Your task to perform on an android device: Go to Amazon Image 0: 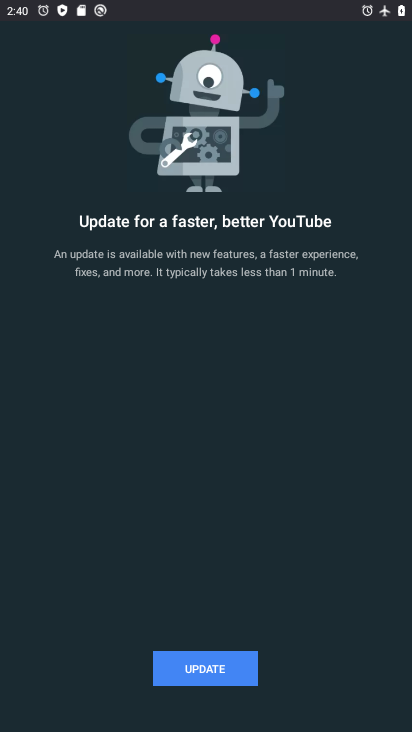
Step 0: press home button
Your task to perform on an android device: Go to Amazon Image 1: 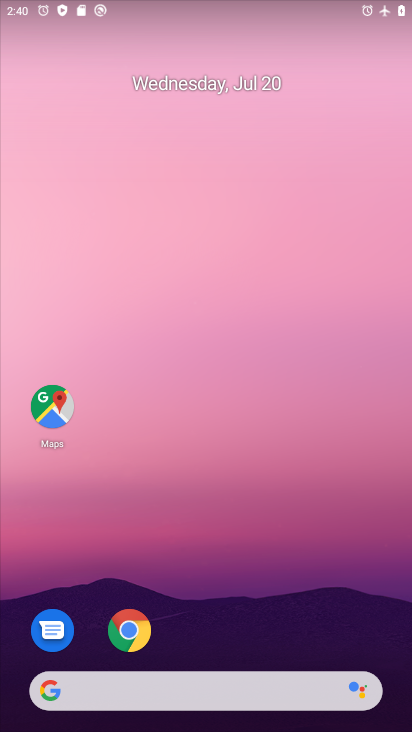
Step 1: click (134, 638)
Your task to perform on an android device: Go to Amazon Image 2: 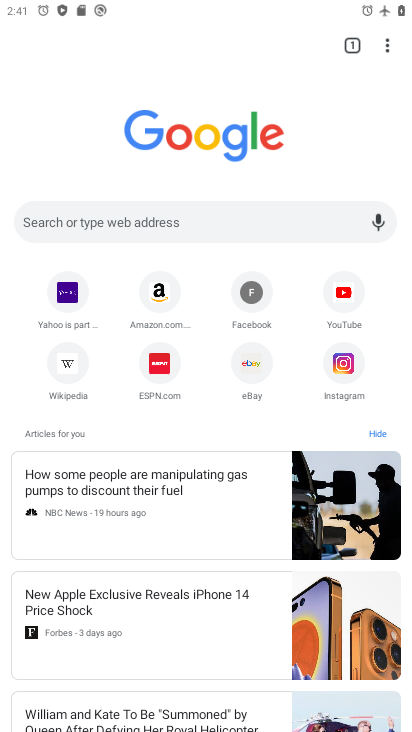
Step 2: click (175, 303)
Your task to perform on an android device: Go to Amazon Image 3: 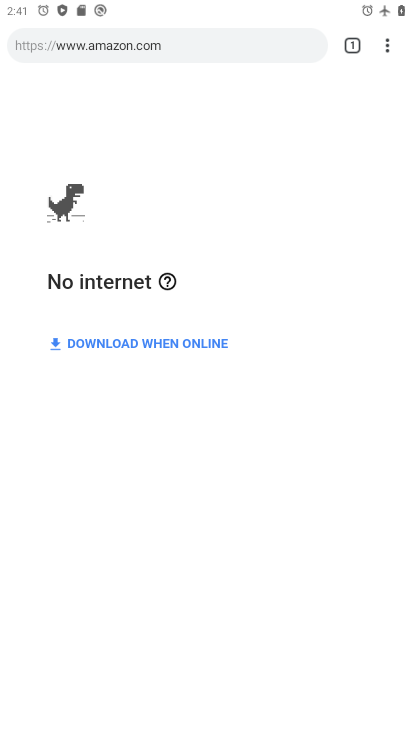
Step 3: drag from (370, 7) to (325, 257)
Your task to perform on an android device: Go to Amazon Image 4: 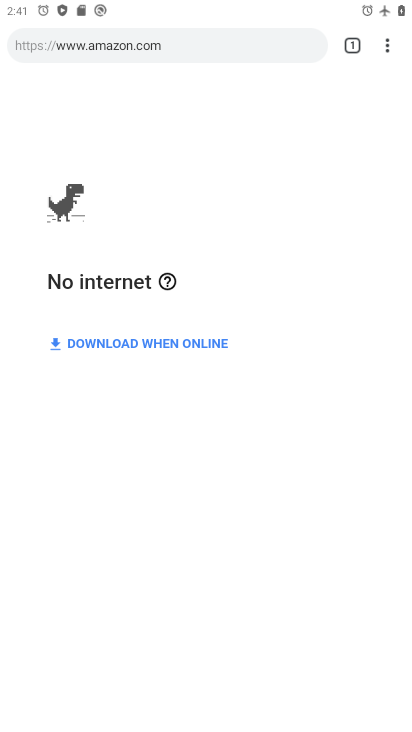
Step 4: click (373, 111)
Your task to perform on an android device: Go to Amazon Image 5: 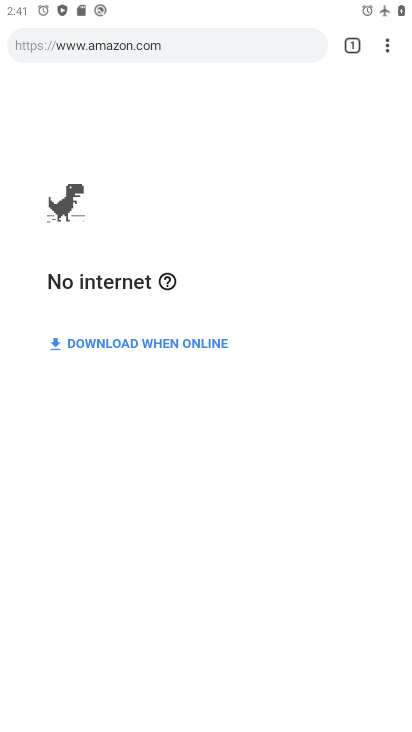
Step 5: drag from (375, 14) to (349, 258)
Your task to perform on an android device: Go to Amazon Image 6: 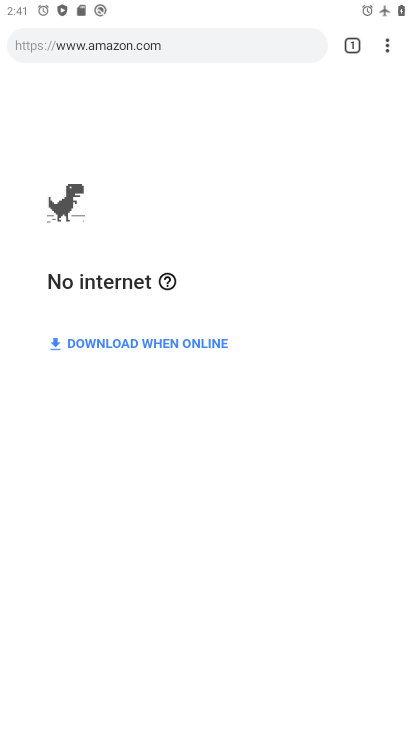
Step 6: drag from (376, 13) to (329, 303)
Your task to perform on an android device: Go to Amazon Image 7: 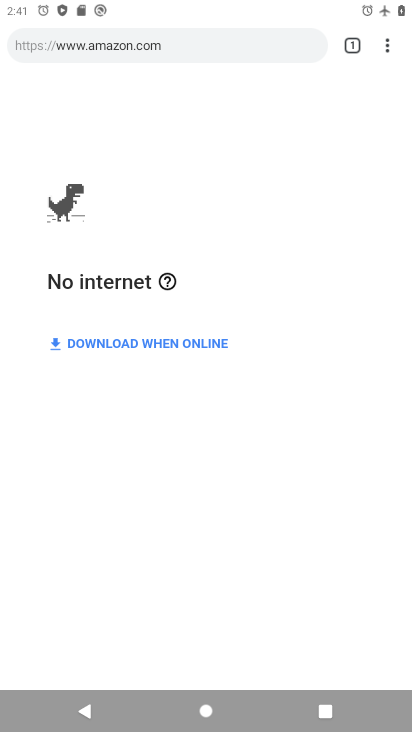
Step 7: drag from (374, 0) to (287, 599)
Your task to perform on an android device: Go to Amazon Image 8: 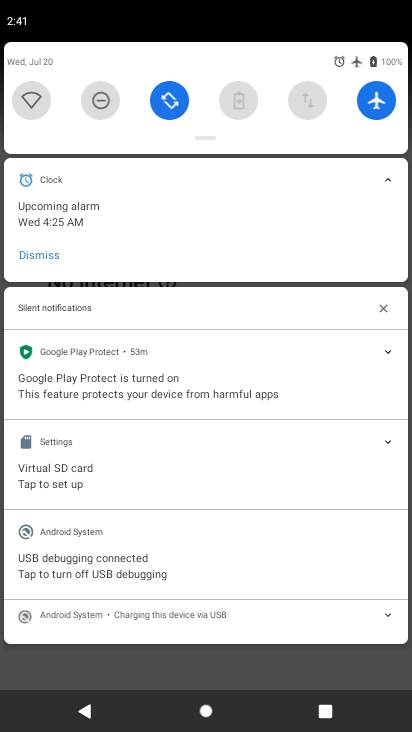
Step 8: click (370, 99)
Your task to perform on an android device: Go to Amazon Image 9: 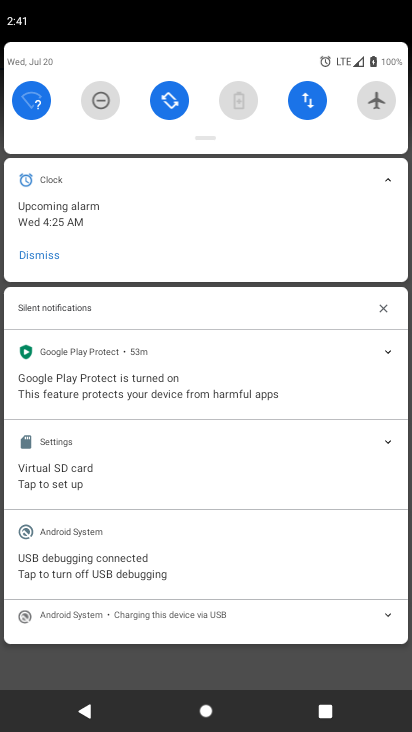
Step 9: task complete